Your task to perform on an android device: Clear the cart on ebay. Image 0: 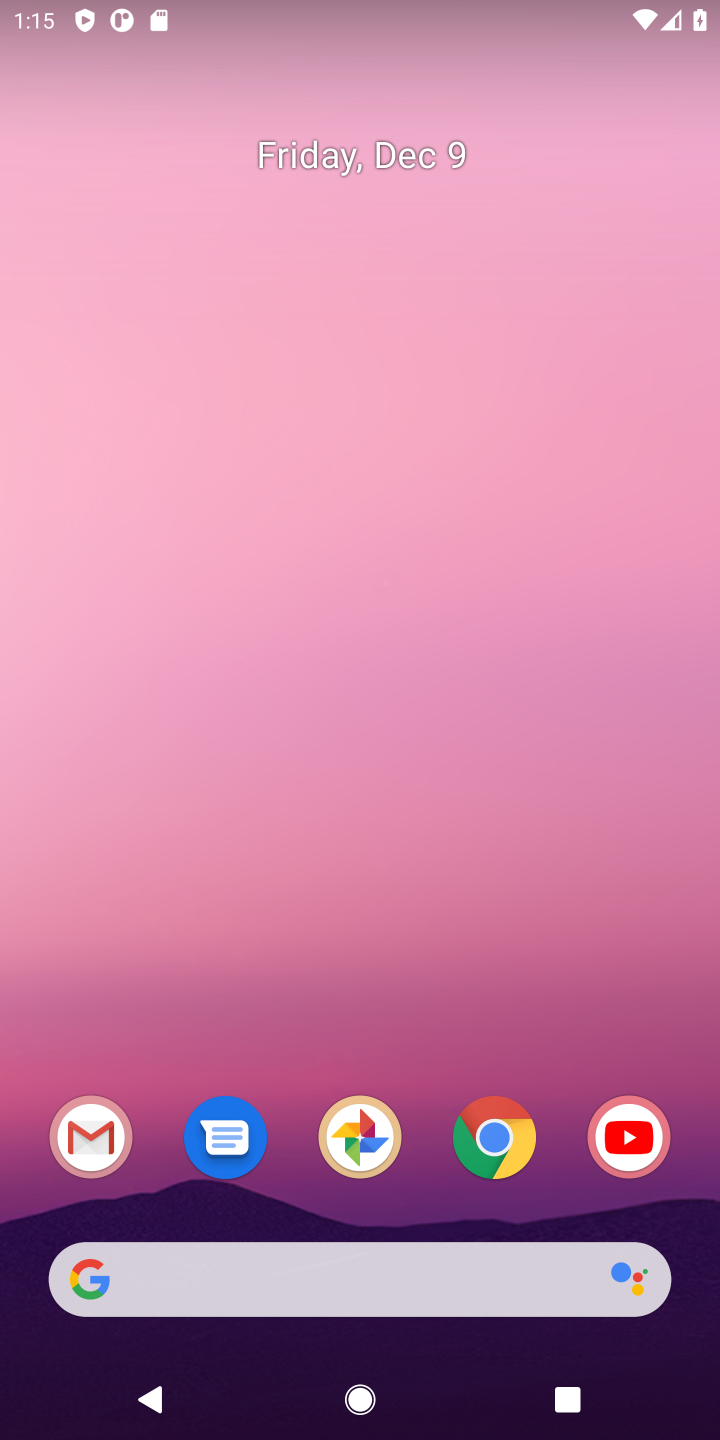
Step 0: click (491, 1135)
Your task to perform on an android device: Clear the cart on ebay. Image 1: 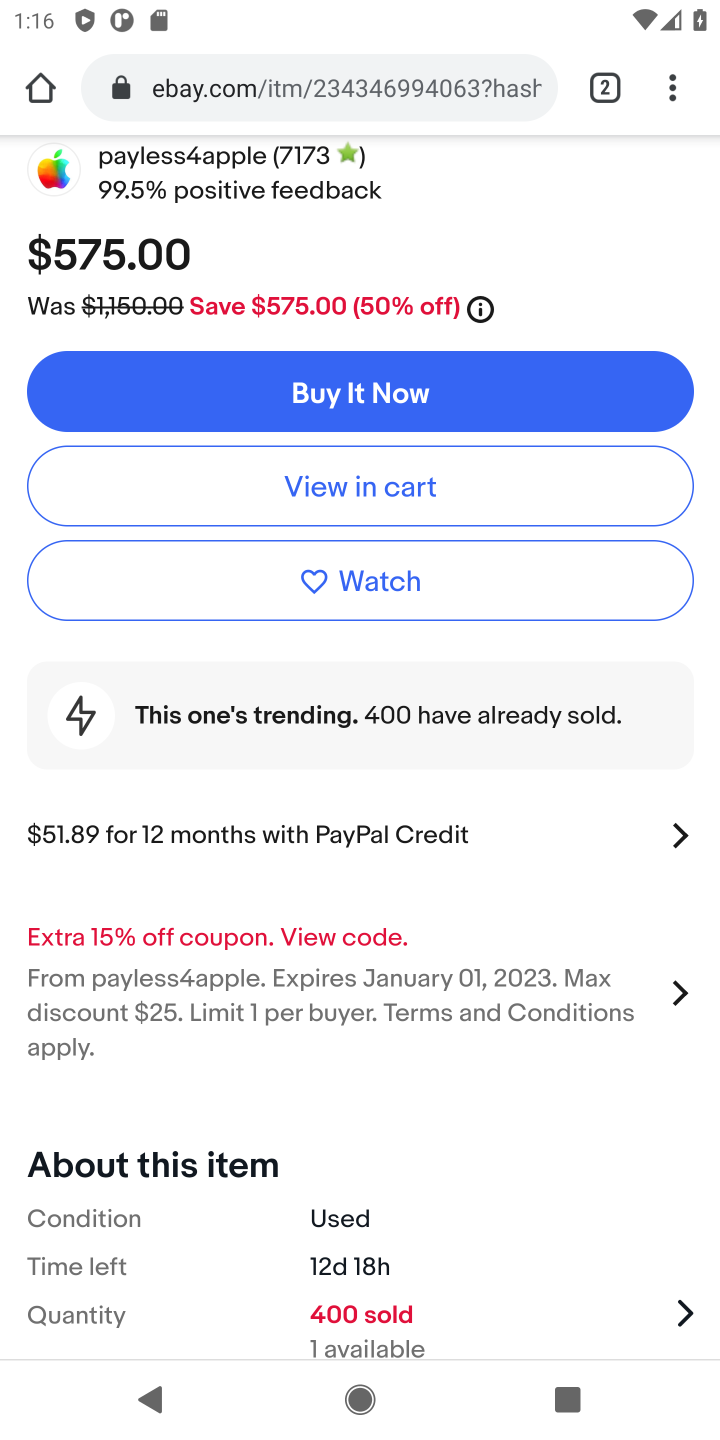
Step 1: drag from (394, 207) to (270, 1167)
Your task to perform on an android device: Clear the cart on ebay. Image 2: 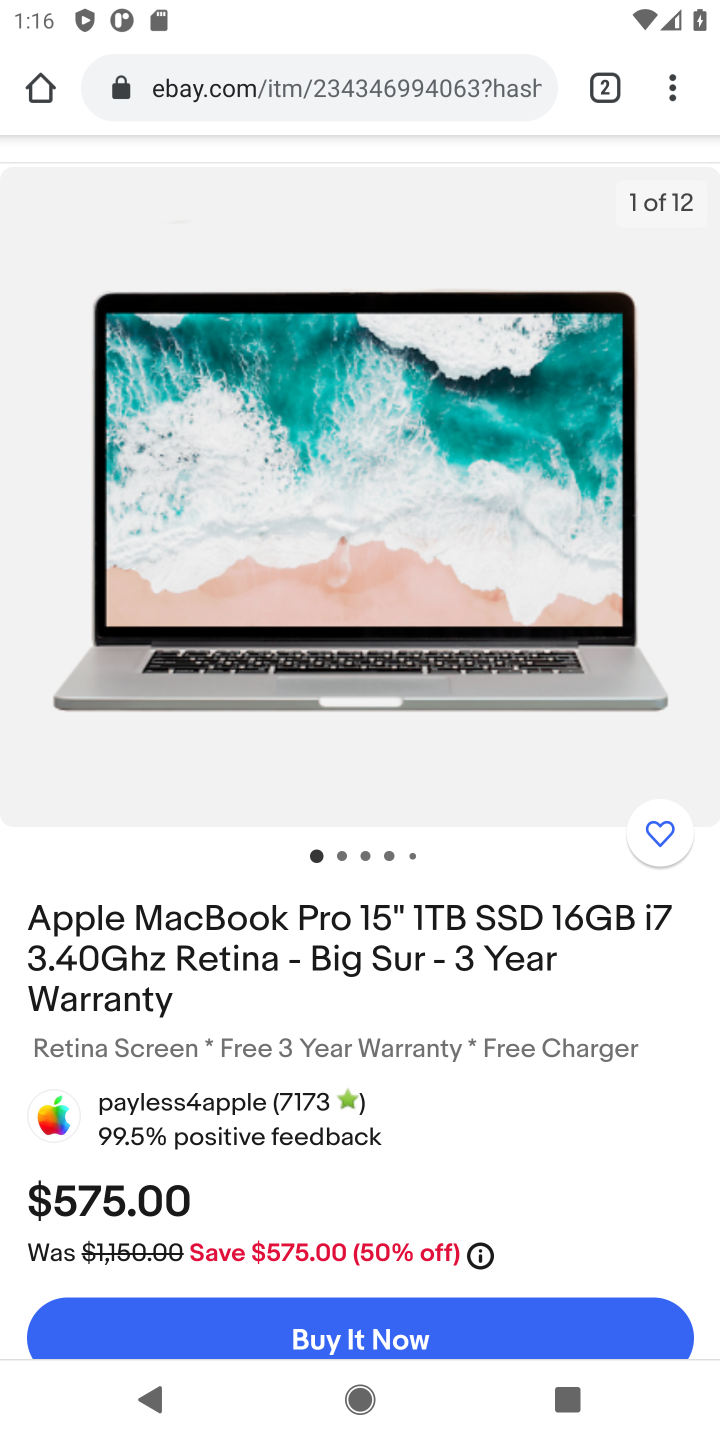
Step 2: drag from (463, 197) to (376, 865)
Your task to perform on an android device: Clear the cart on ebay. Image 3: 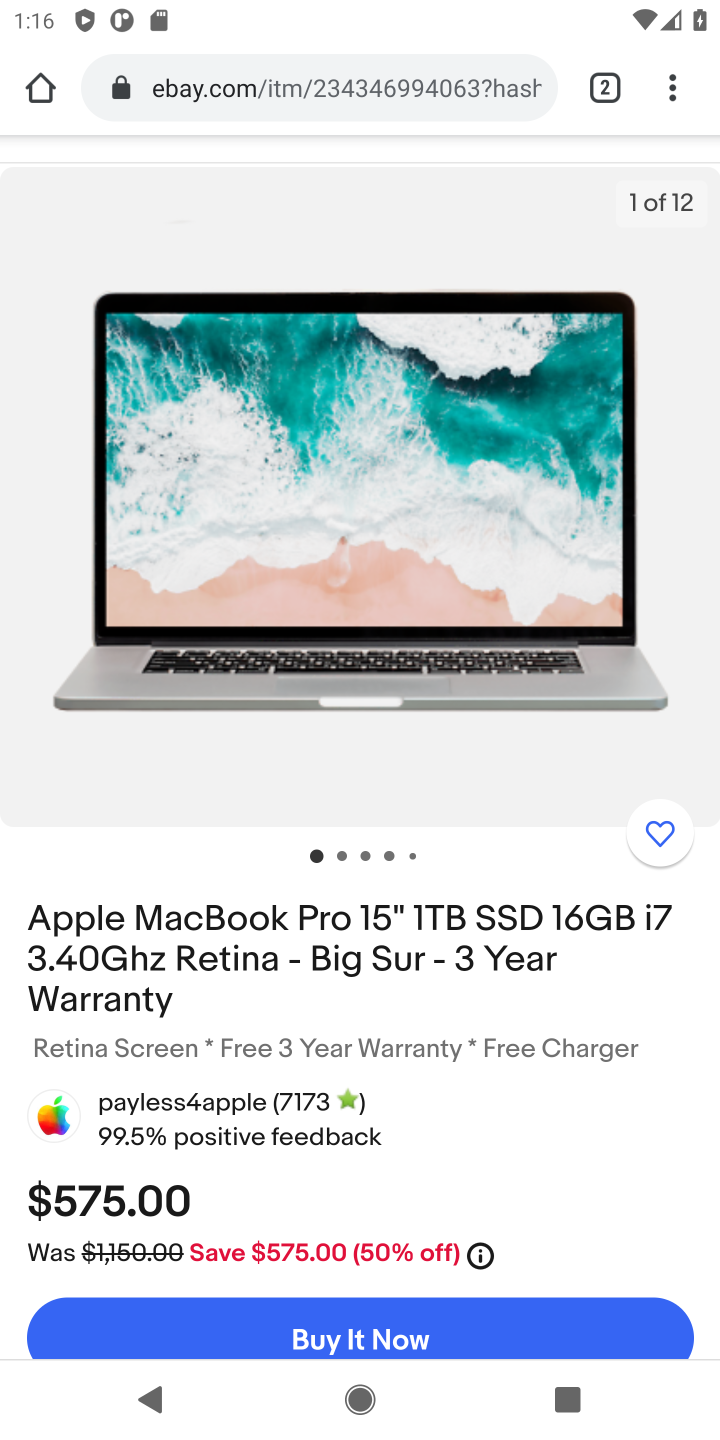
Step 3: drag from (328, 147) to (184, 1326)
Your task to perform on an android device: Clear the cart on ebay. Image 4: 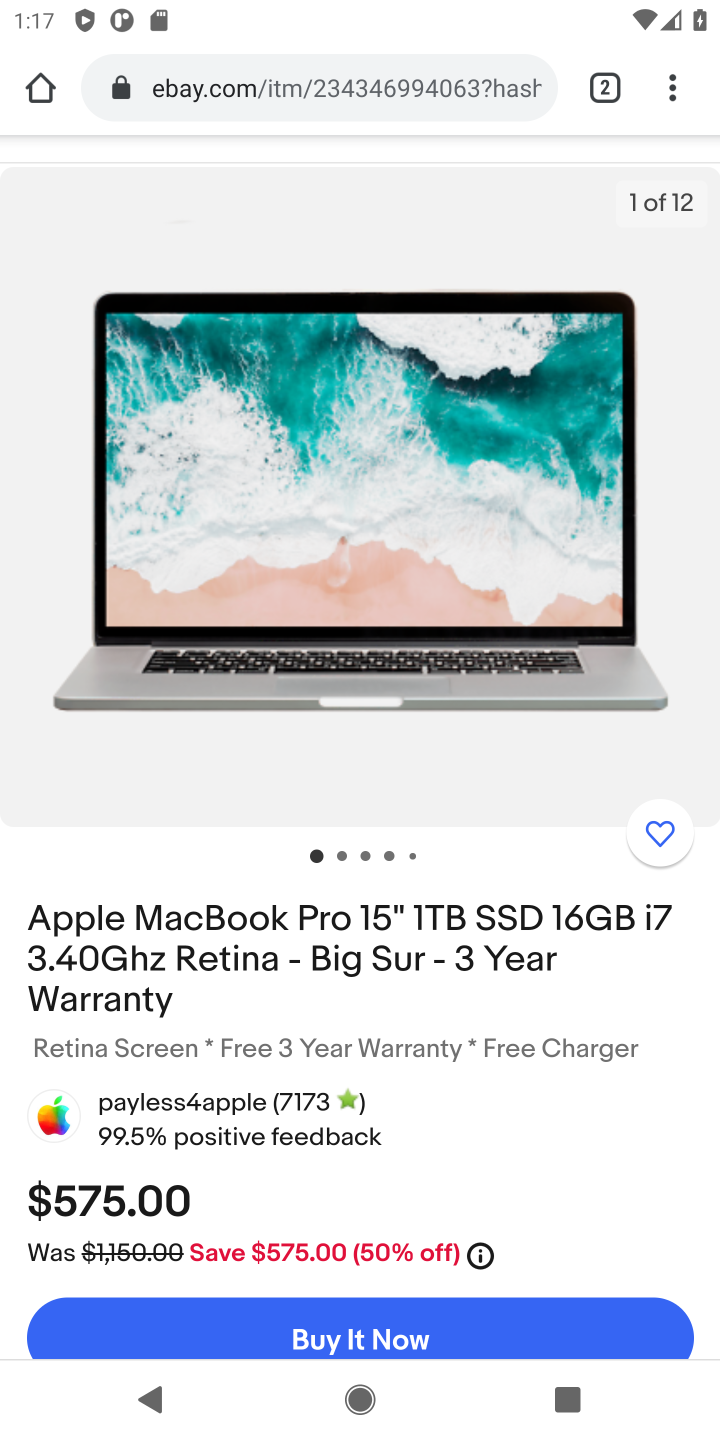
Step 4: click (360, 79)
Your task to perform on an android device: Clear the cart on ebay. Image 5: 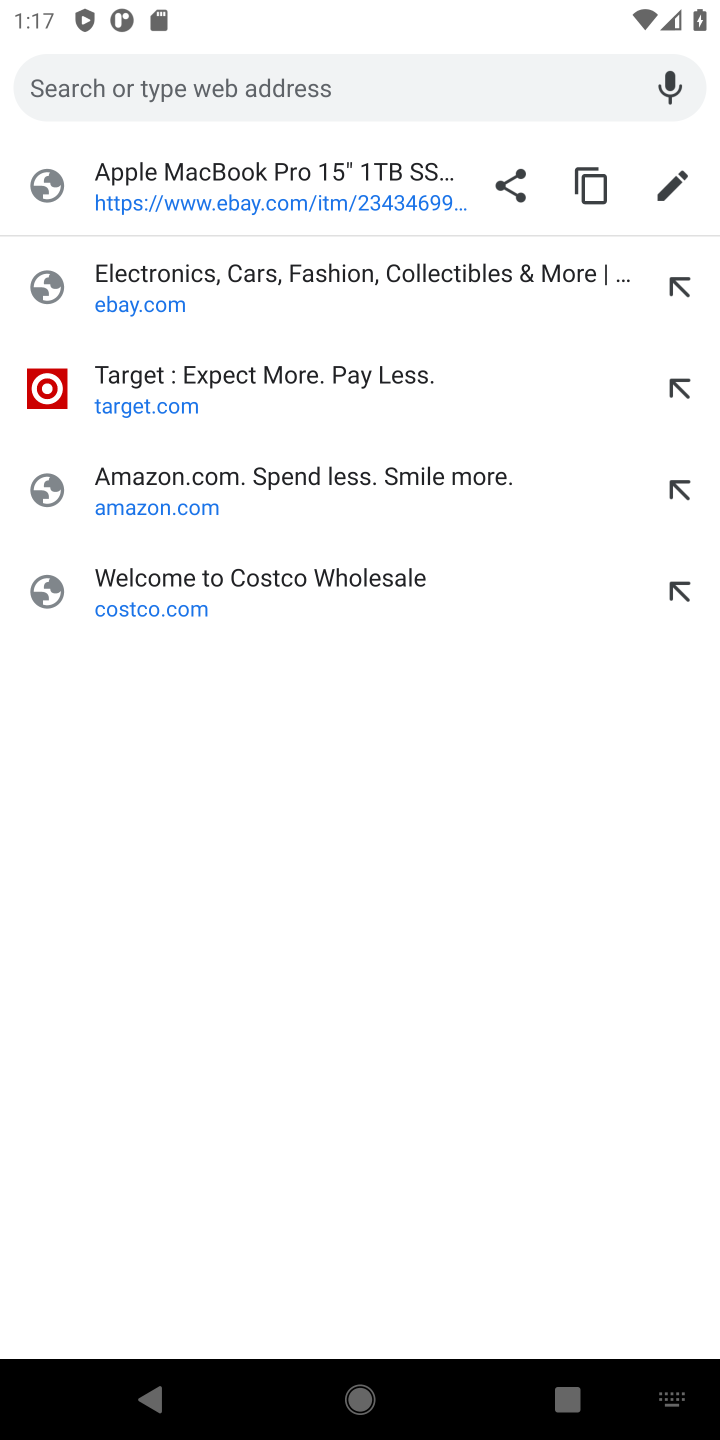
Step 5: click (305, 179)
Your task to perform on an android device: Clear the cart on ebay. Image 6: 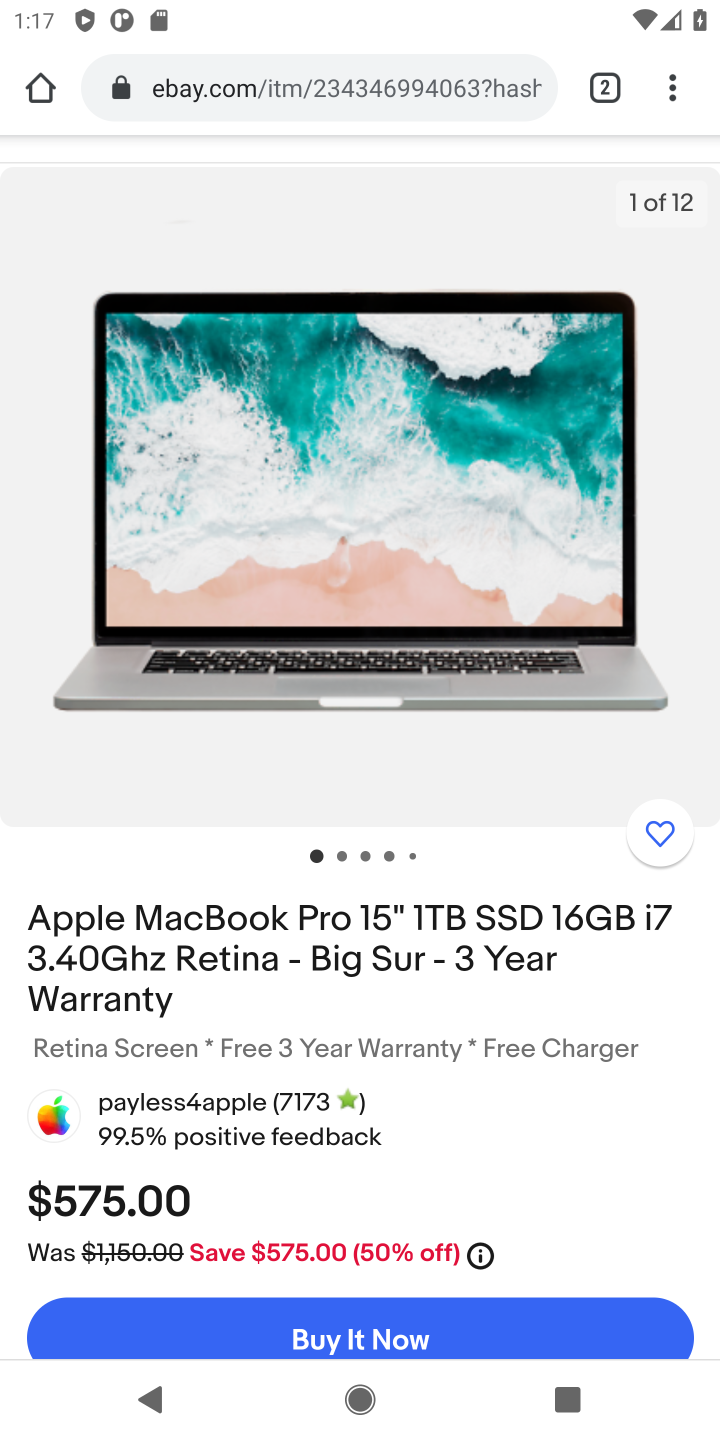
Step 6: click (311, 77)
Your task to perform on an android device: Clear the cart on ebay. Image 7: 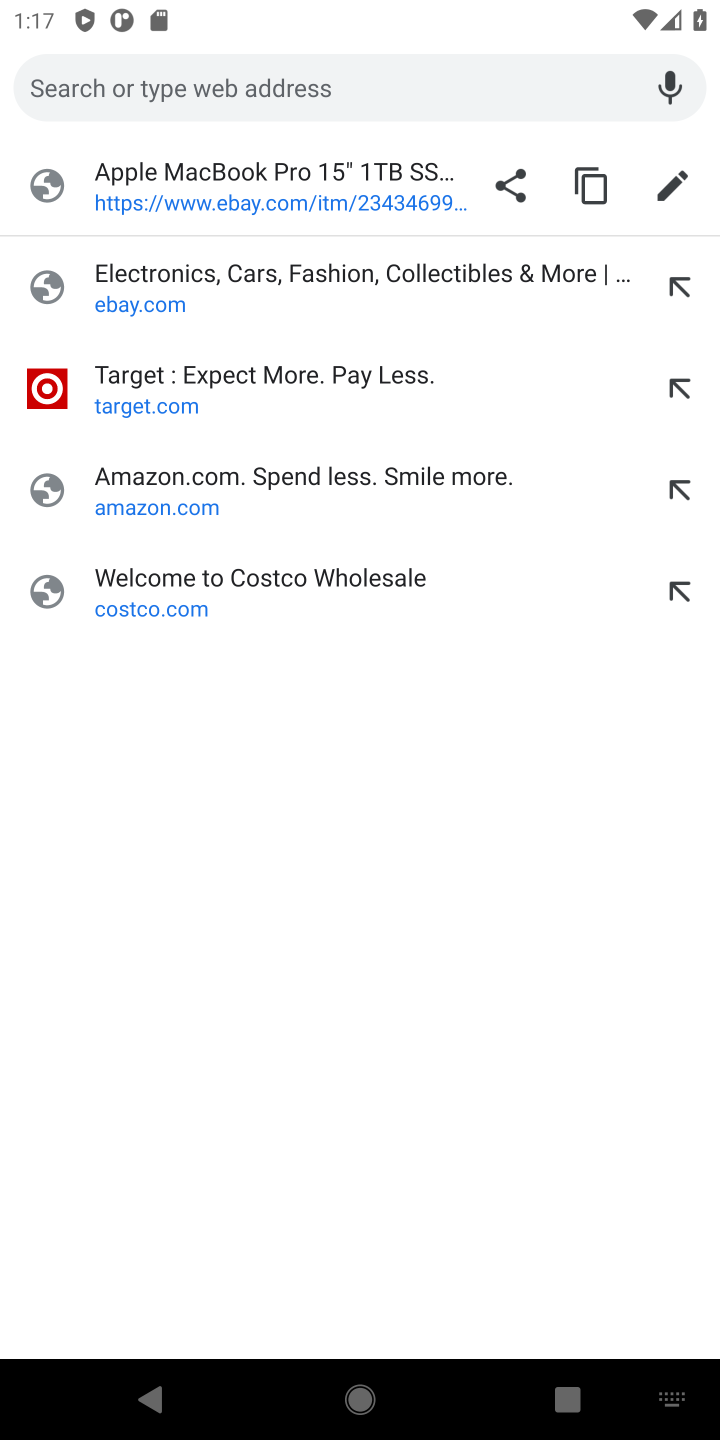
Step 7: click (239, 299)
Your task to perform on an android device: Clear the cart on ebay. Image 8: 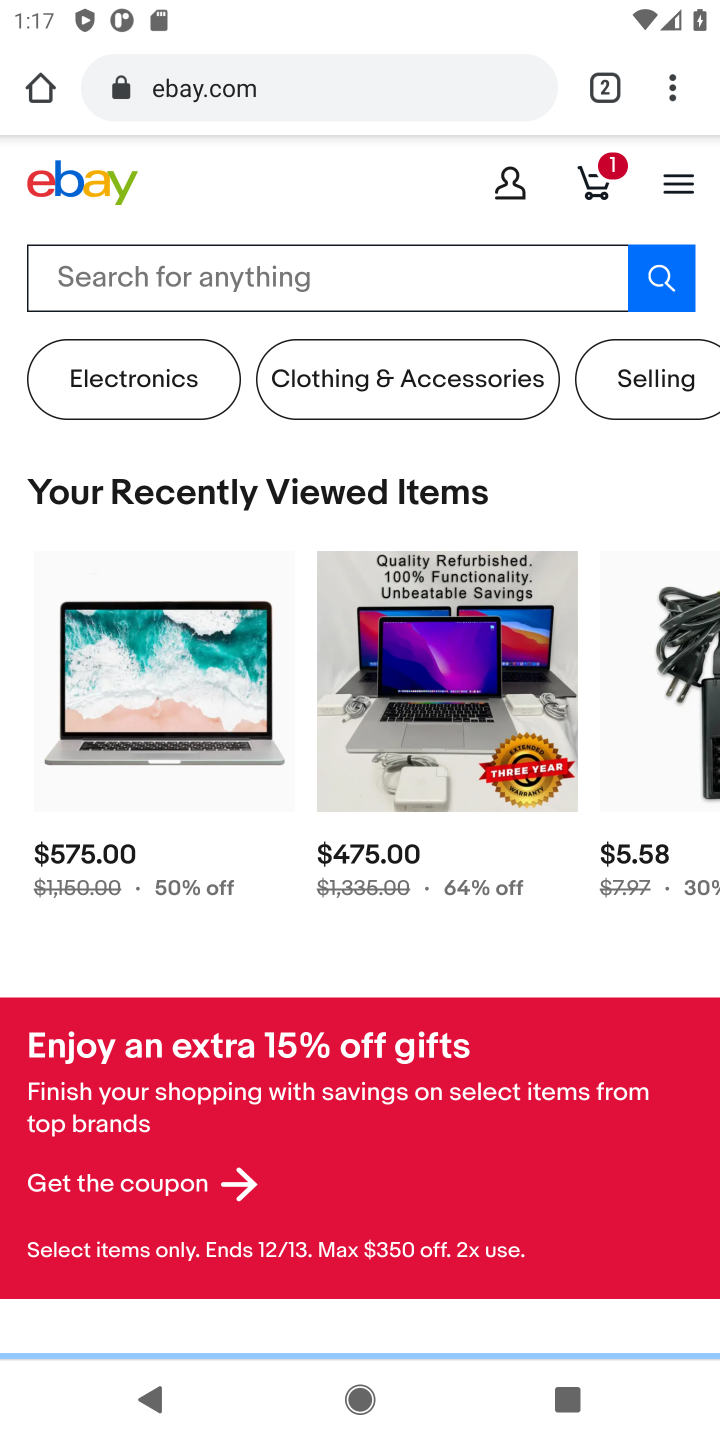
Step 8: click (602, 177)
Your task to perform on an android device: Clear the cart on ebay. Image 9: 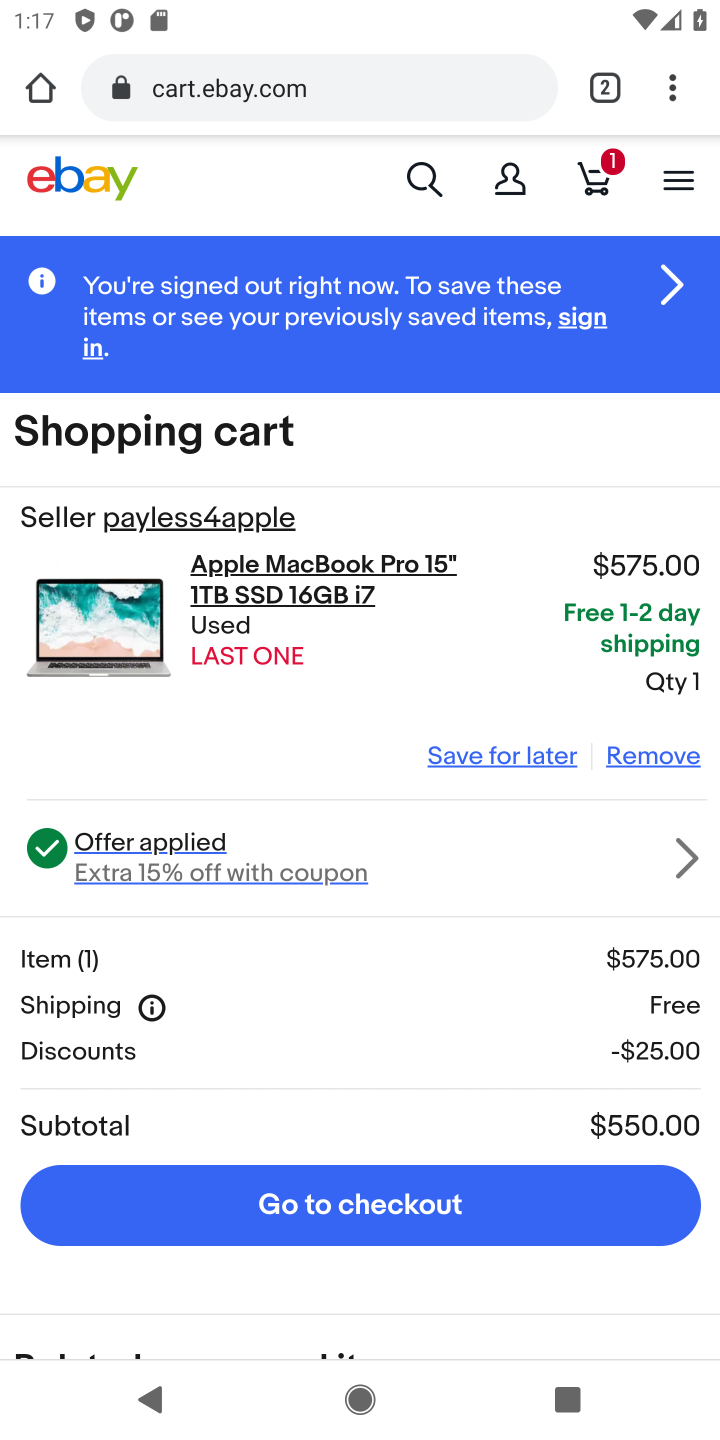
Step 9: click (629, 757)
Your task to perform on an android device: Clear the cart on ebay. Image 10: 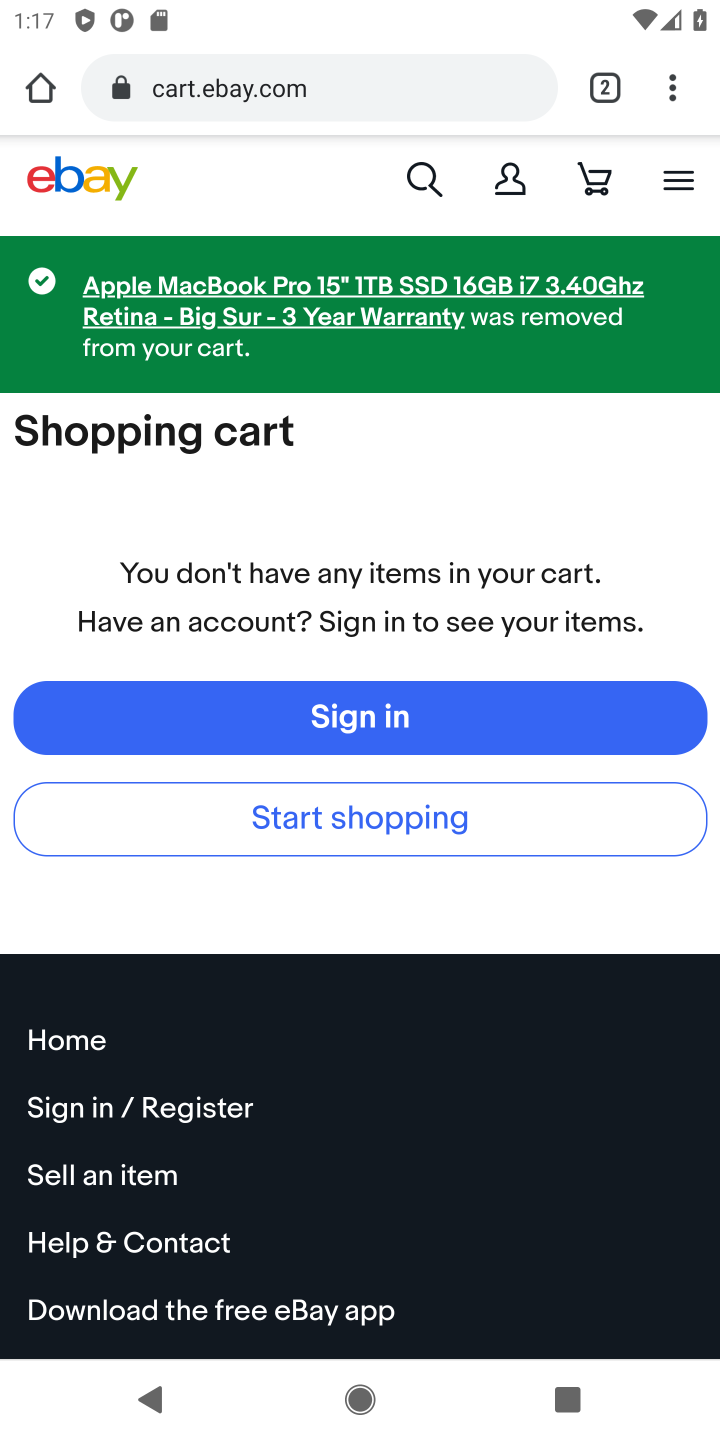
Step 10: task complete